Your task to perform on an android device: What's the weather today? Image 0: 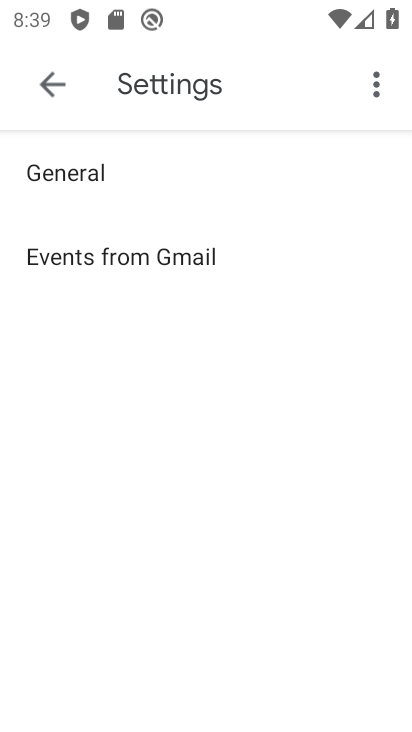
Step 0: press home button
Your task to perform on an android device: What's the weather today? Image 1: 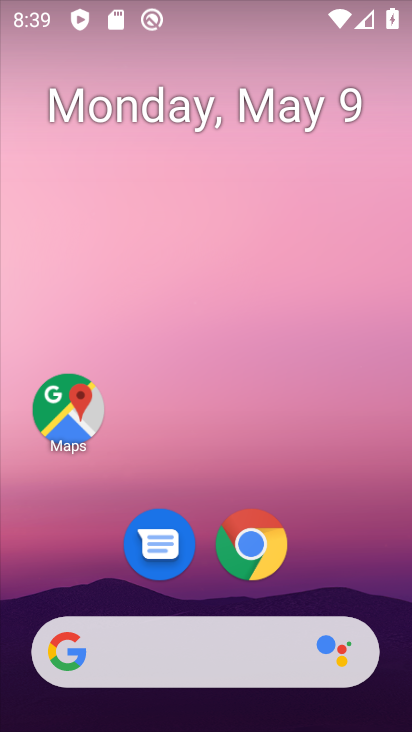
Step 1: click (208, 650)
Your task to perform on an android device: What's the weather today? Image 2: 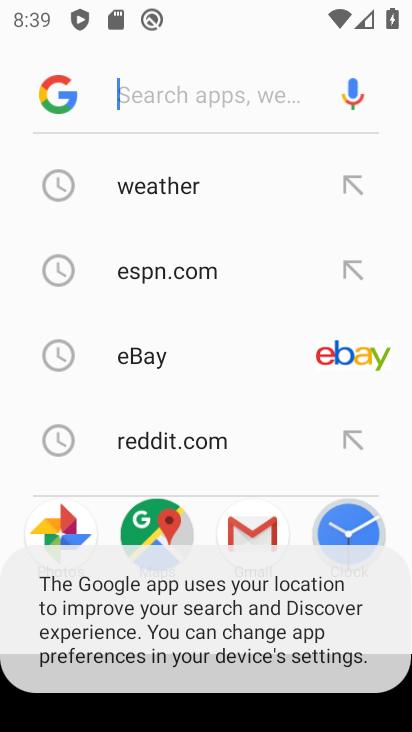
Step 2: click (153, 185)
Your task to perform on an android device: What's the weather today? Image 3: 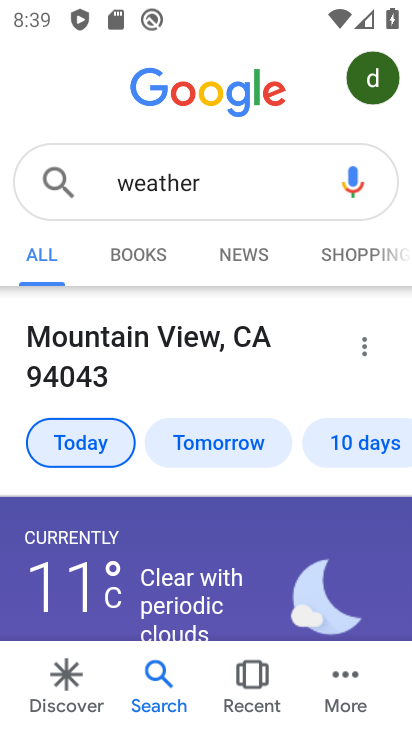
Step 3: task complete